Your task to perform on an android device: What's on my calendar tomorrow? Image 0: 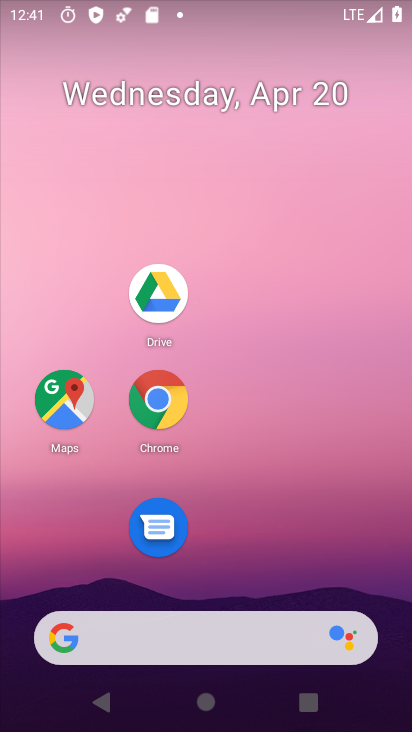
Step 0: drag from (252, 672) to (264, 281)
Your task to perform on an android device: What's on my calendar tomorrow? Image 1: 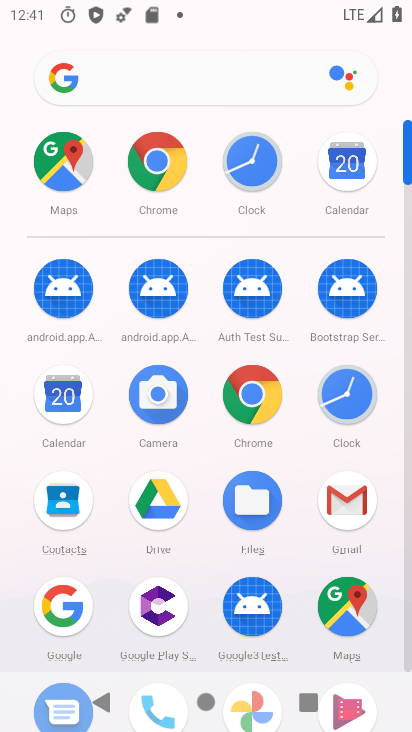
Step 1: click (77, 400)
Your task to perform on an android device: What's on my calendar tomorrow? Image 2: 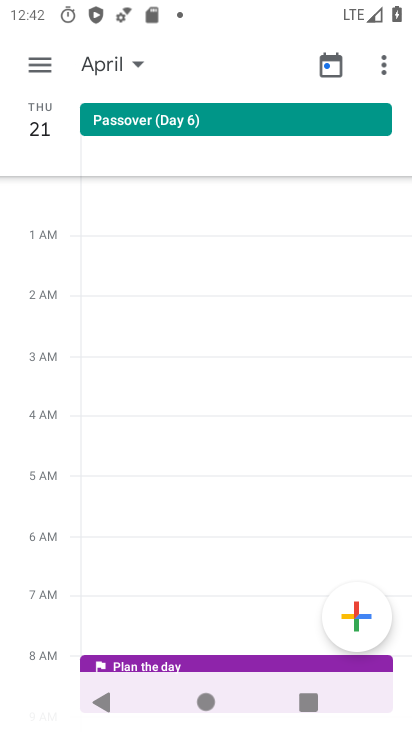
Step 2: task complete